Your task to perform on an android device: Search for vegetarian restaurants on Maps Image 0: 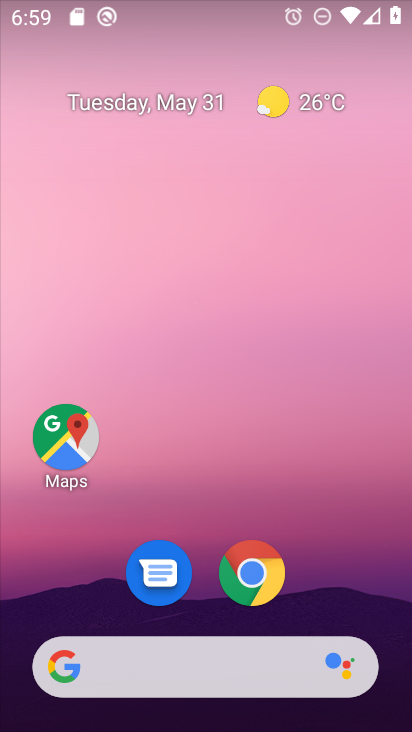
Step 0: drag from (388, 506) to (325, 37)
Your task to perform on an android device: Search for vegetarian restaurants on Maps Image 1: 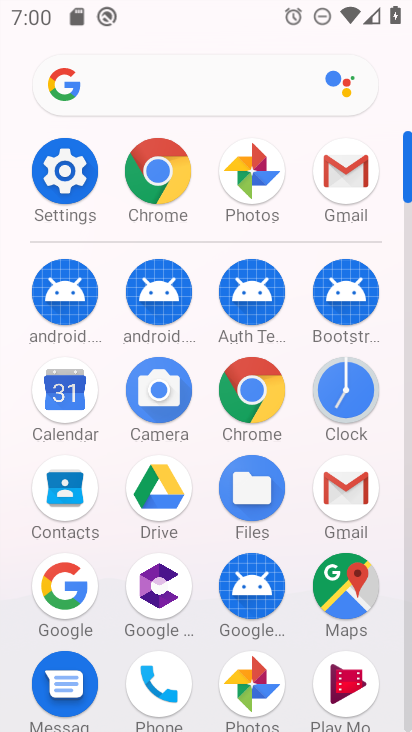
Step 1: click (328, 585)
Your task to perform on an android device: Search for vegetarian restaurants on Maps Image 2: 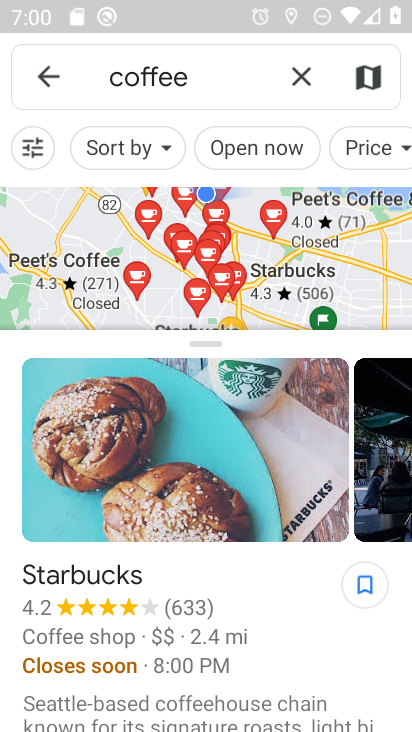
Step 2: click (298, 64)
Your task to perform on an android device: Search for vegetarian restaurants on Maps Image 3: 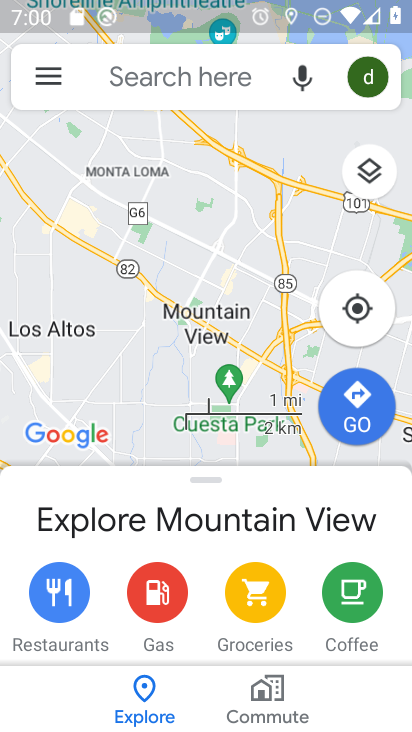
Step 3: click (162, 78)
Your task to perform on an android device: Search for vegetarian restaurants on Maps Image 4: 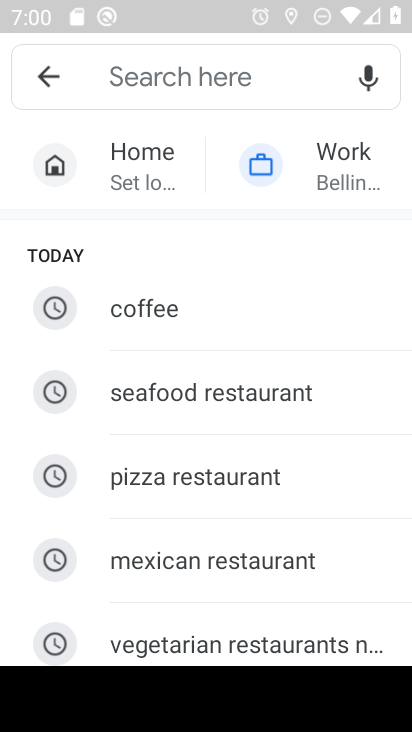
Step 4: click (229, 629)
Your task to perform on an android device: Search for vegetarian restaurants on Maps Image 5: 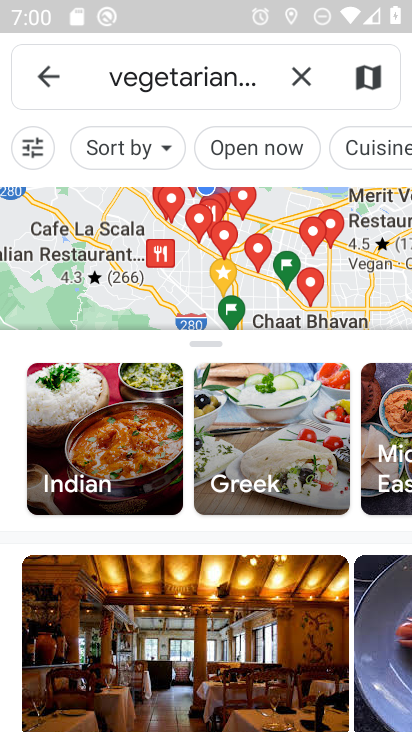
Step 5: task complete